Your task to perform on an android device: Open CNN.com Image 0: 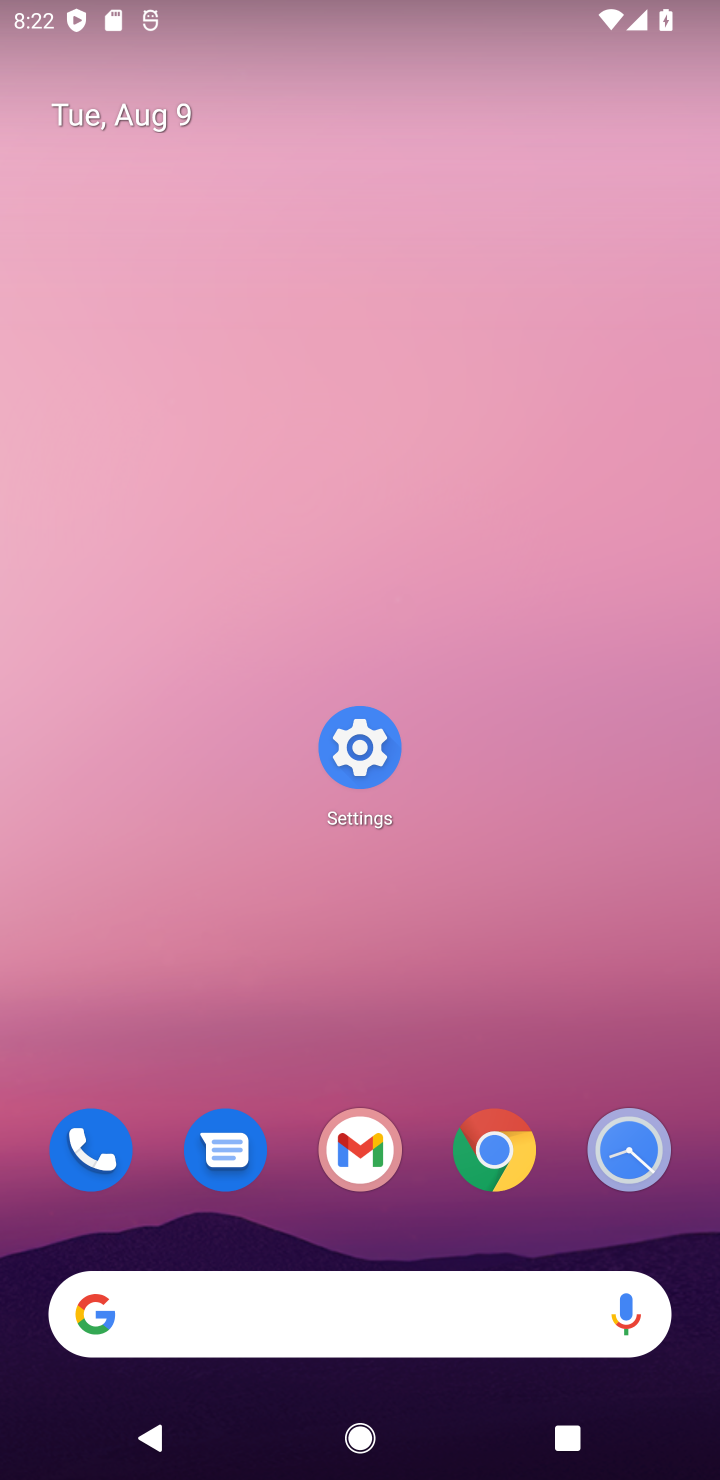
Step 0: press home button
Your task to perform on an android device: Open CNN.com Image 1: 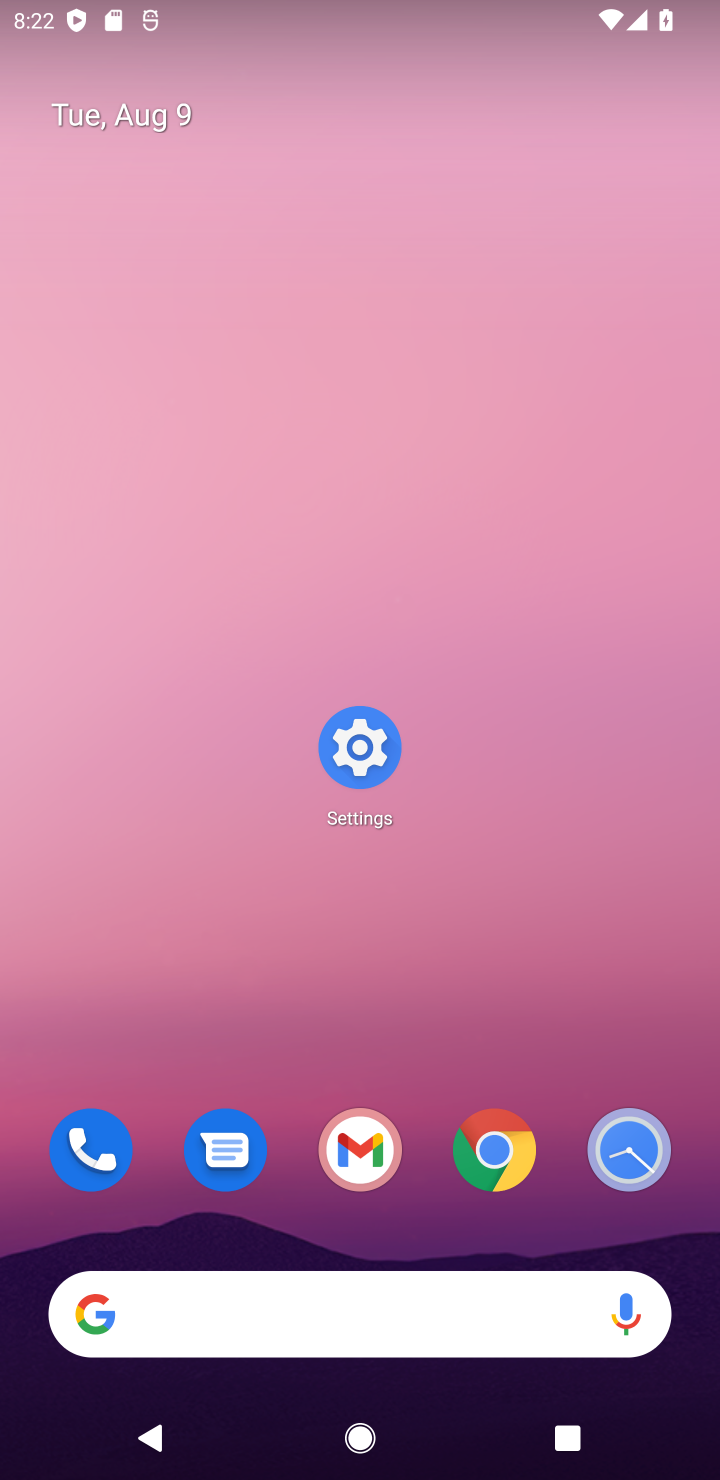
Step 1: click (483, 1164)
Your task to perform on an android device: Open CNN.com Image 2: 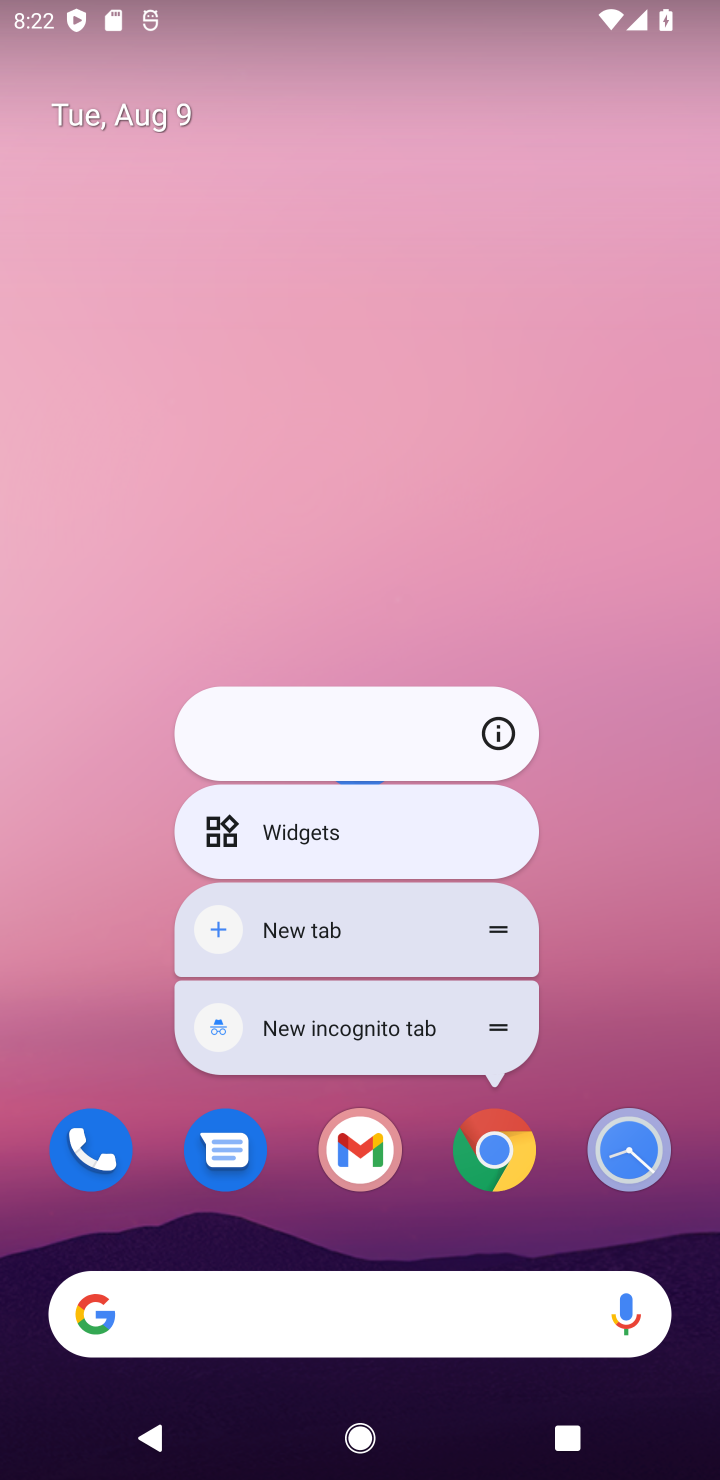
Step 2: click (483, 1164)
Your task to perform on an android device: Open CNN.com Image 3: 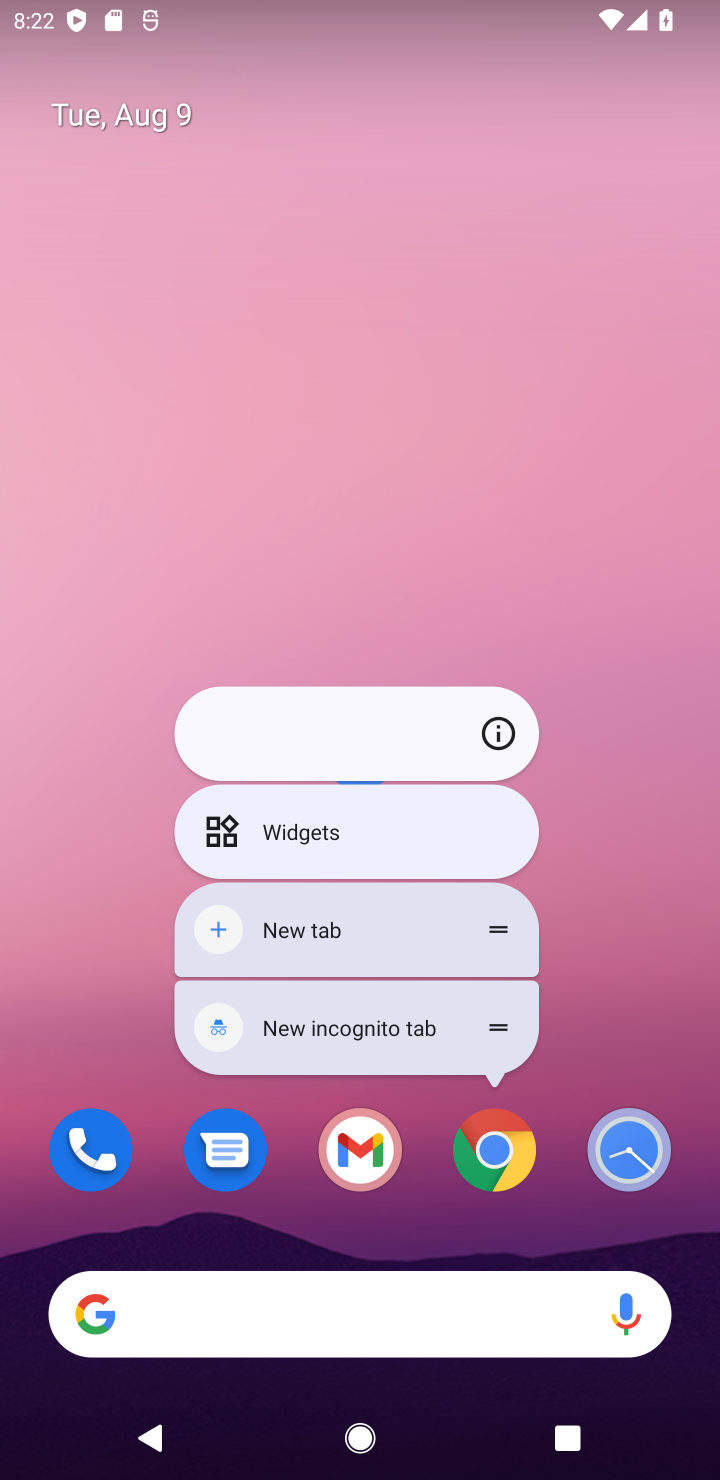
Step 3: click (488, 1144)
Your task to perform on an android device: Open CNN.com Image 4: 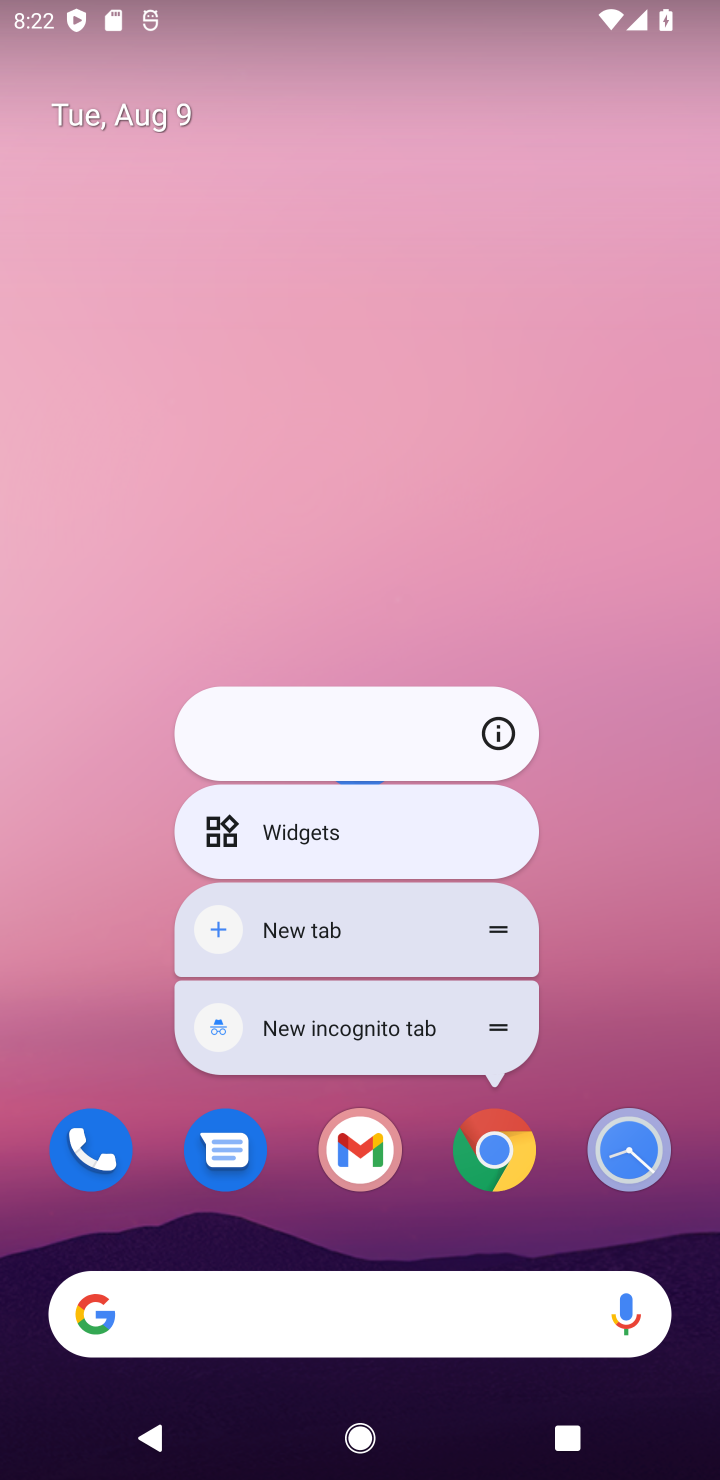
Step 4: click (488, 1148)
Your task to perform on an android device: Open CNN.com Image 5: 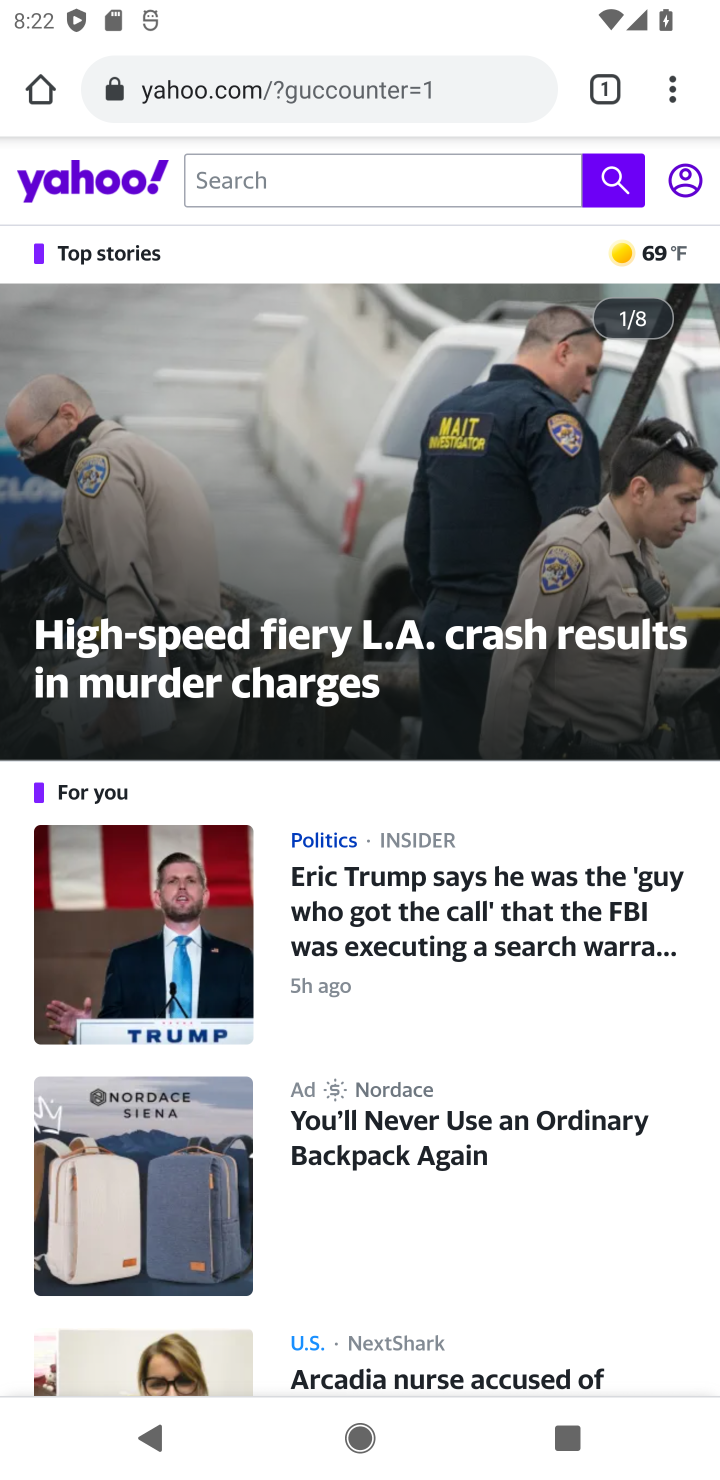
Step 5: drag from (670, 80) to (444, 165)
Your task to perform on an android device: Open CNN.com Image 6: 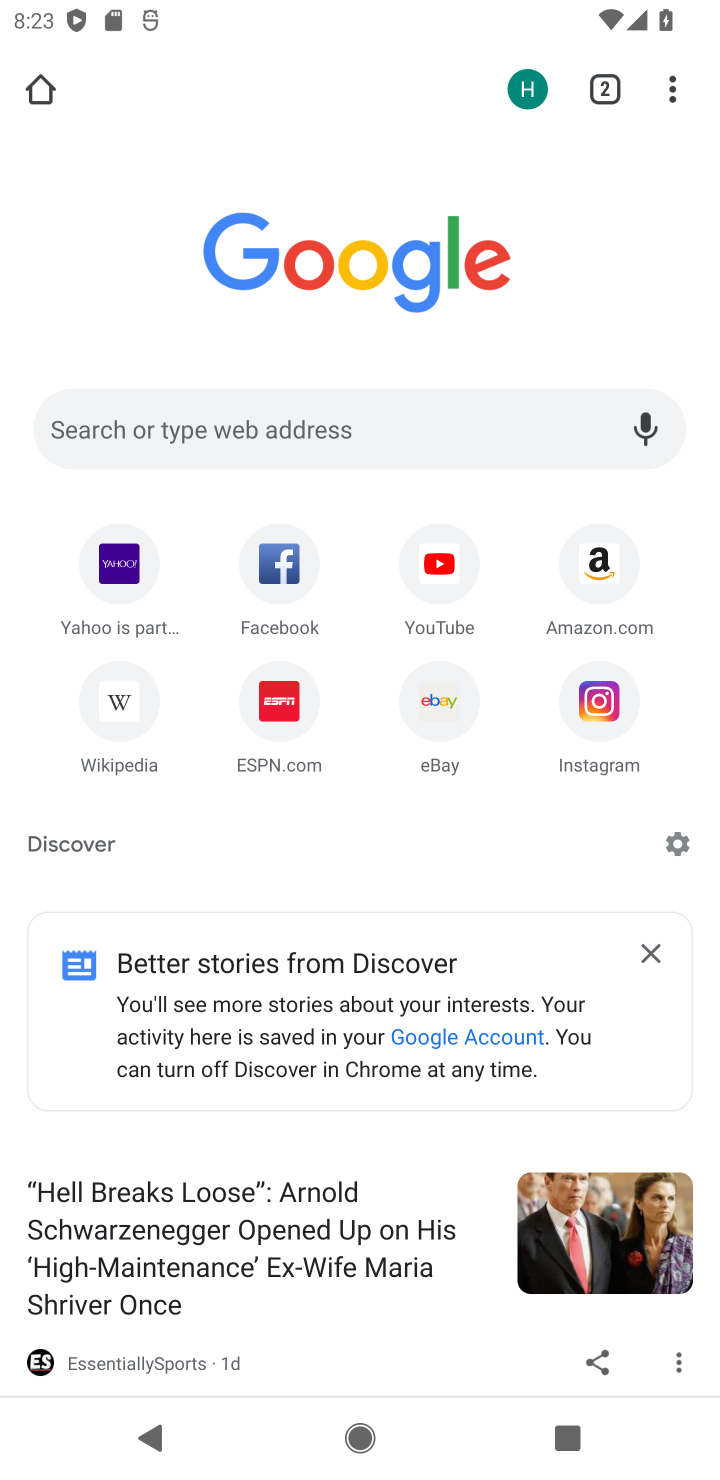
Step 6: click (216, 434)
Your task to perform on an android device: Open CNN.com Image 7: 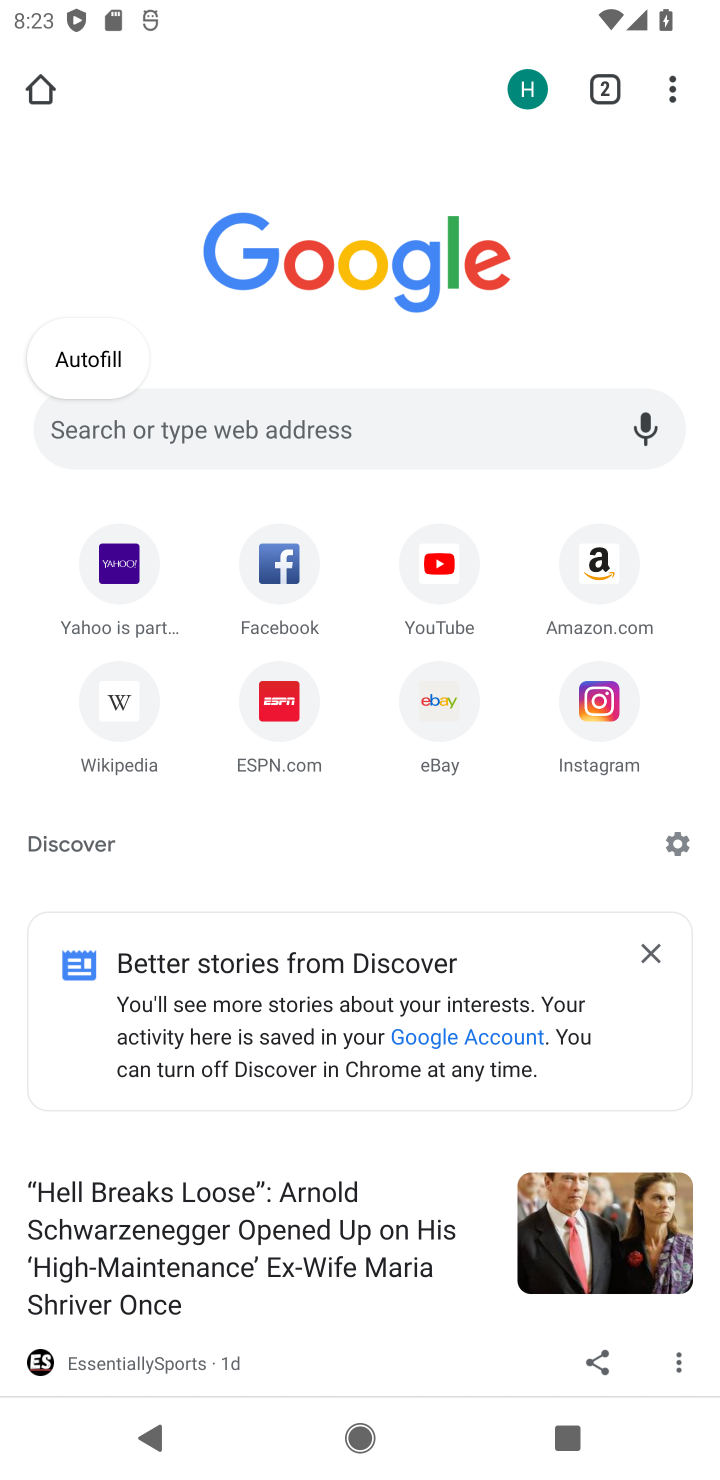
Step 7: click (209, 415)
Your task to perform on an android device: Open CNN.com Image 8: 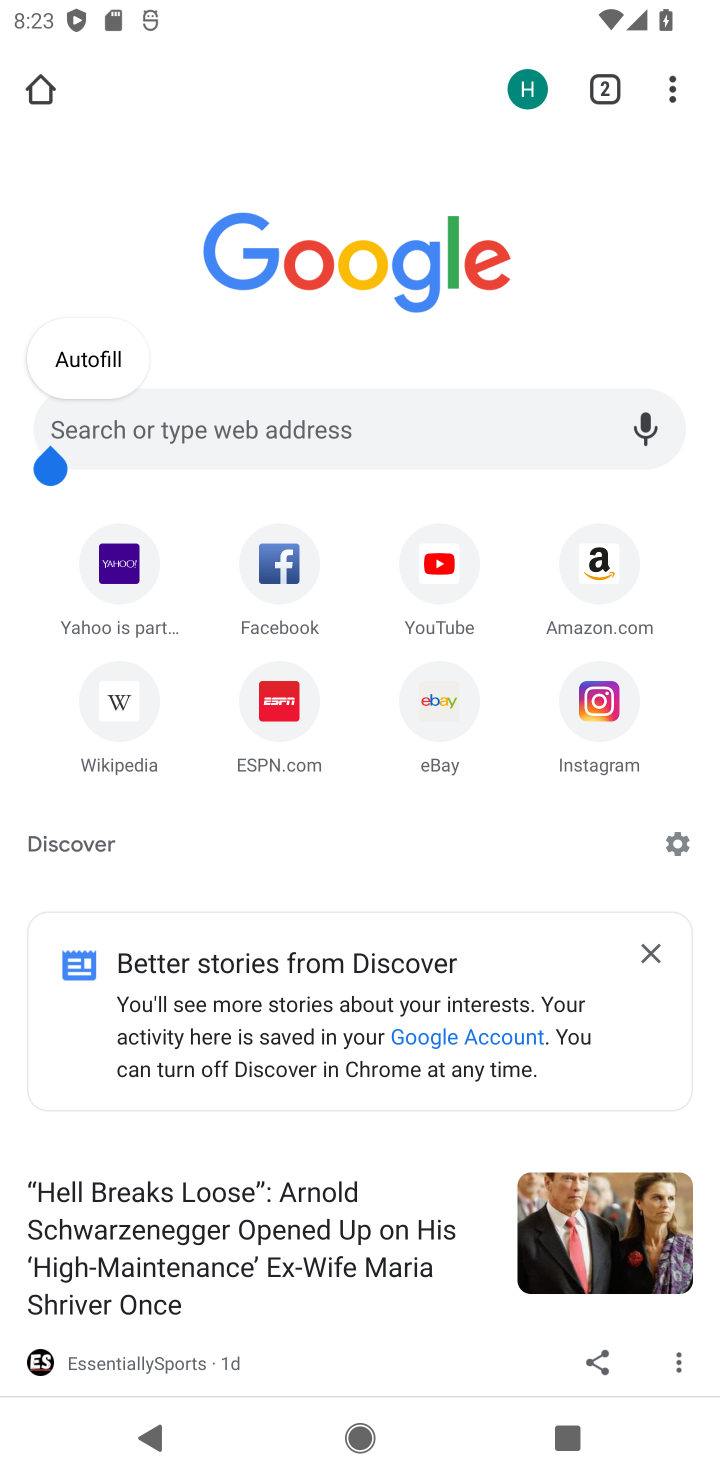
Step 8: click (122, 435)
Your task to perform on an android device: Open CNN.com Image 9: 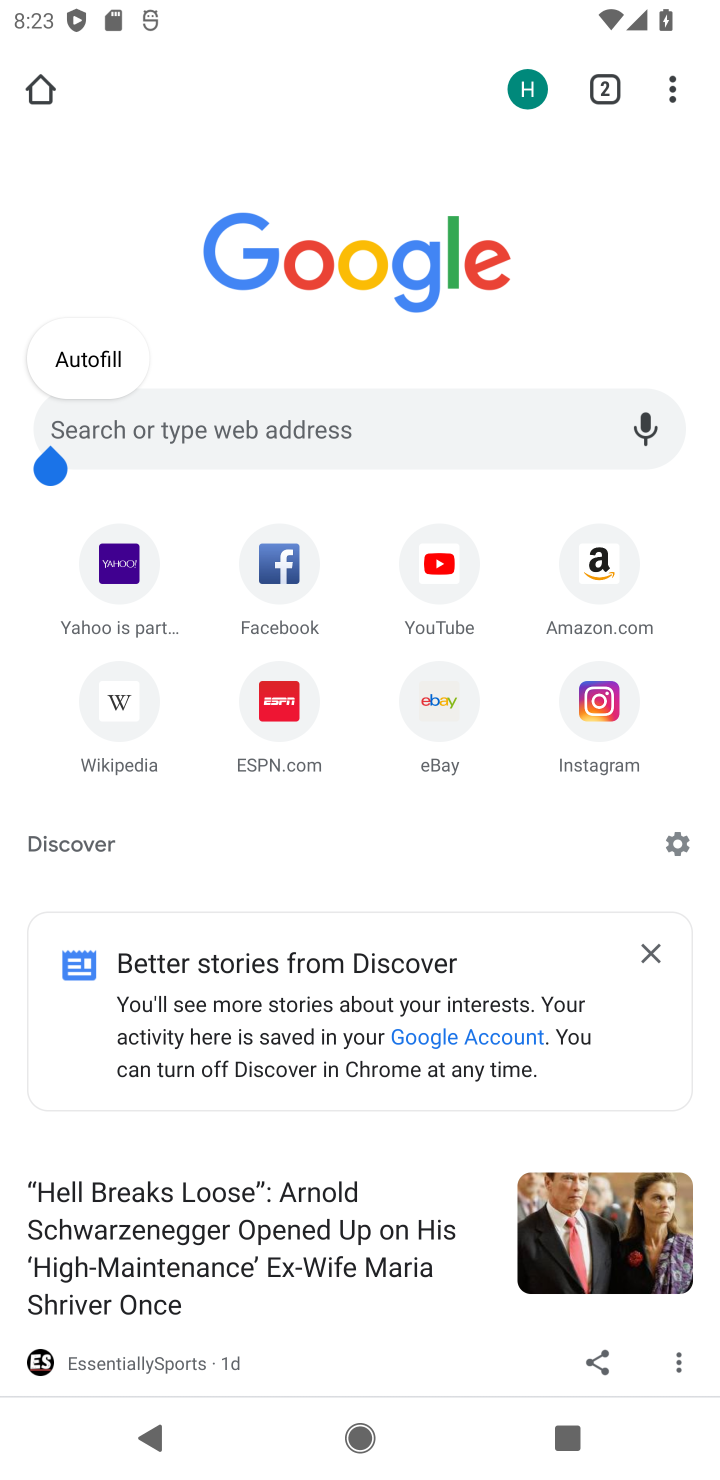
Step 9: click (180, 417)
Your task to perform on an android device: Open CNN.com Image 10: 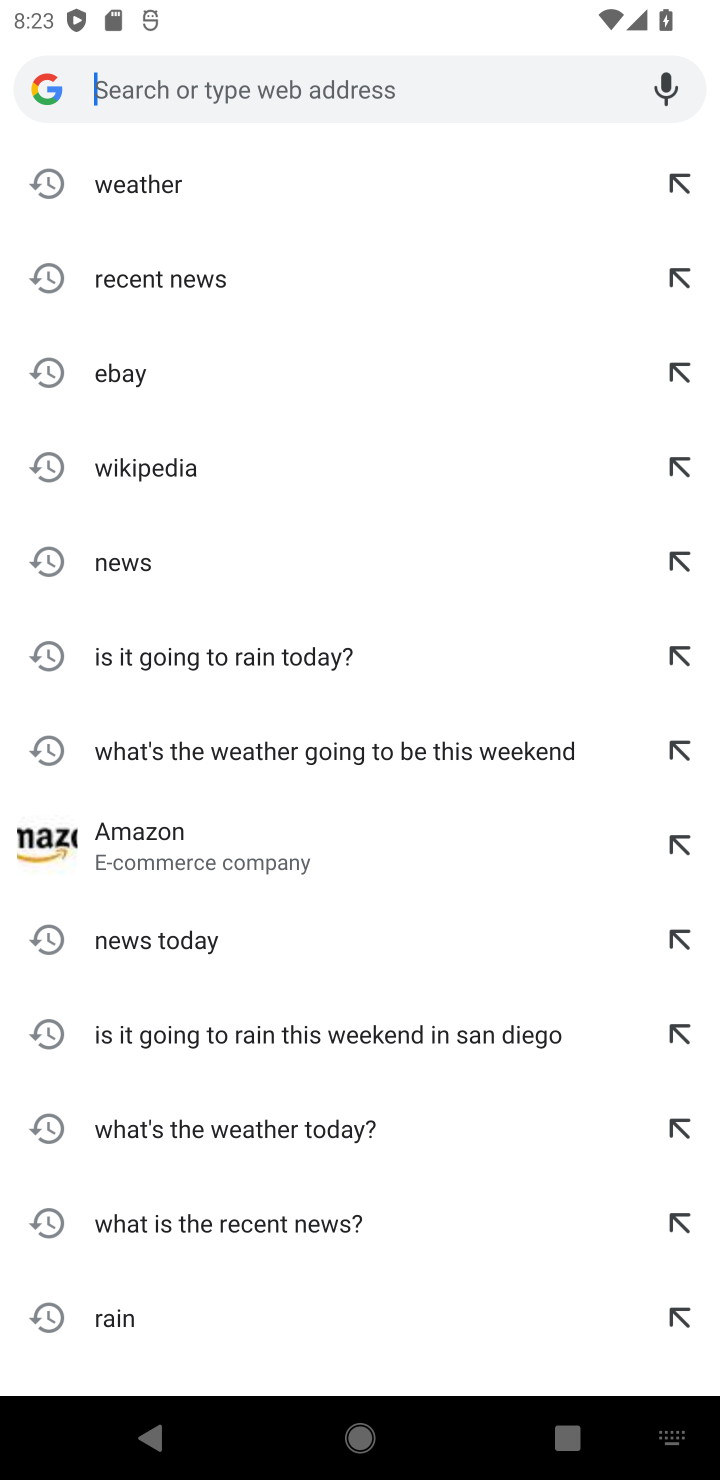
Step 10: type "CNN.com"
Your task to perform on an android device: Open CNN.com Image 11: 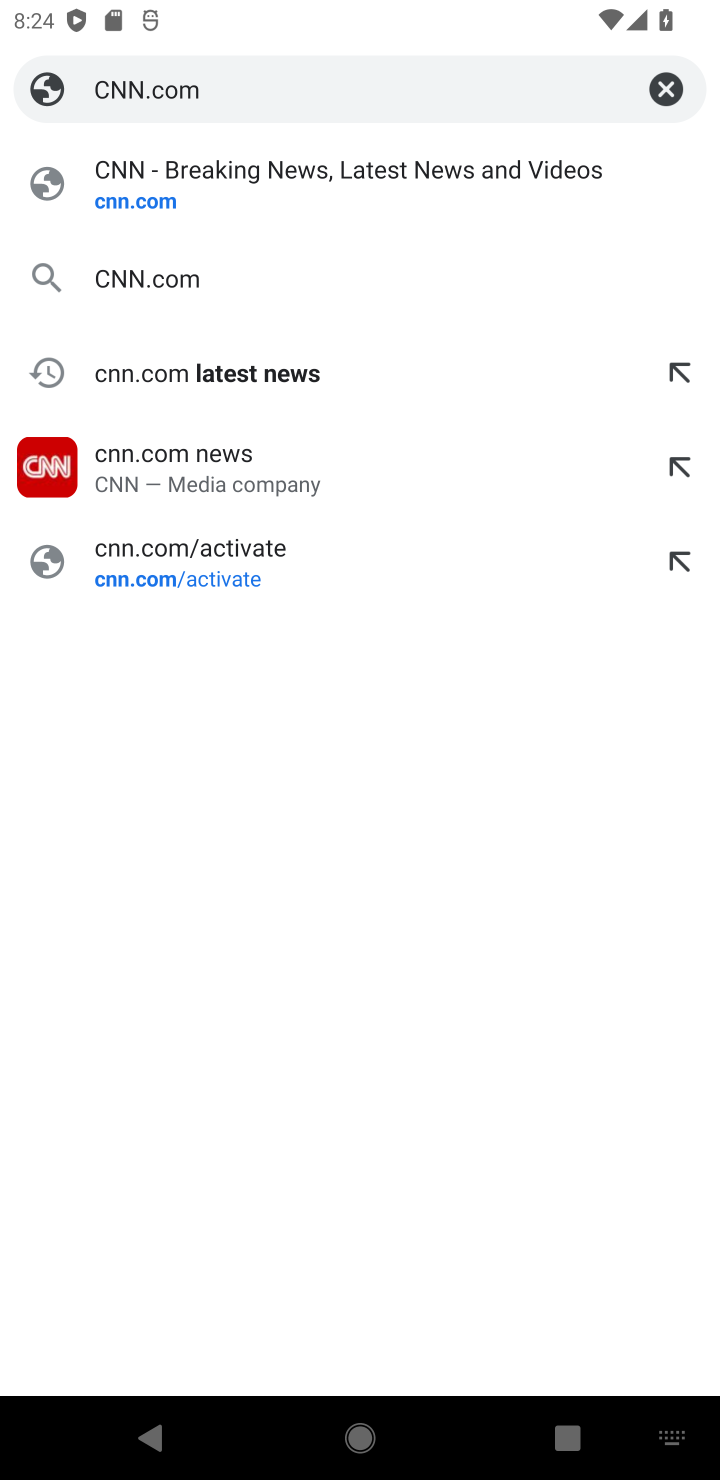
Step 11: click (219, 157)
Your task to perform on an android device: Open CNN.com Image 12: 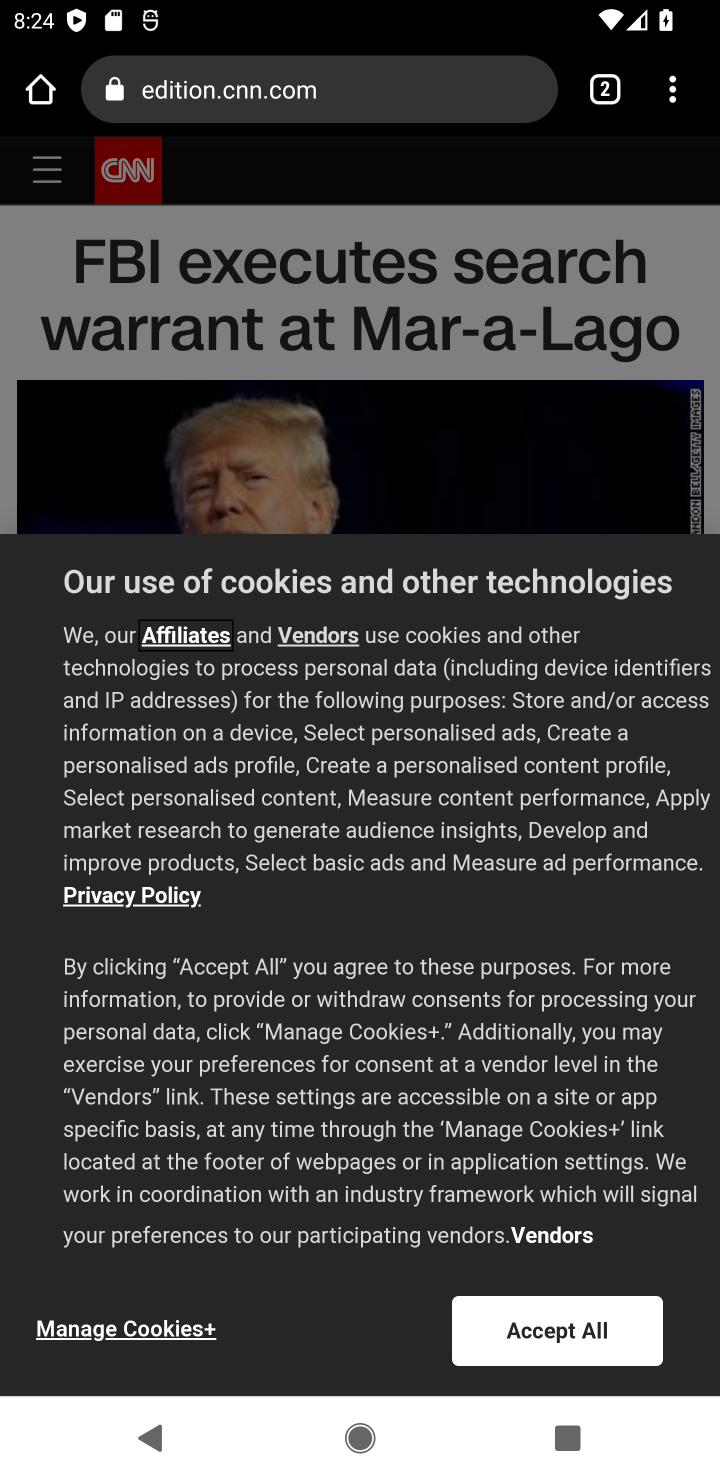
Step 12: click (593, 1324)
Your task to perform on an android device: Open CNN.com Image 13: 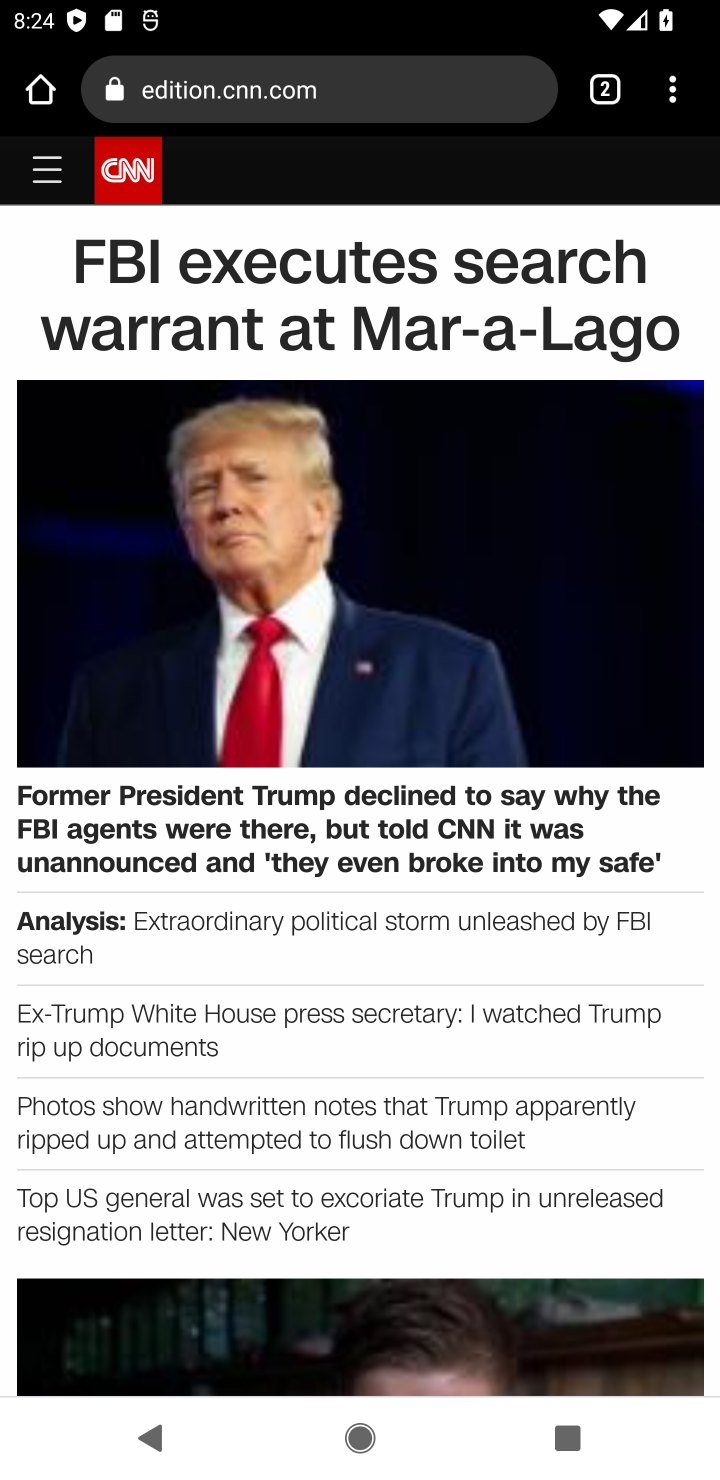
Step 13: task complete